Your task to perform on an android device: toggle show notifications on the lock screen Image 0: 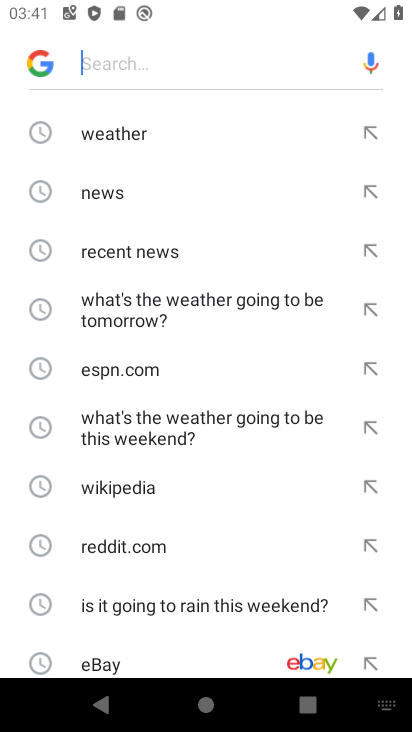
Step 0: press back button
Your task to perform on an android device: toggle show notifications on the lock screen Image 1: 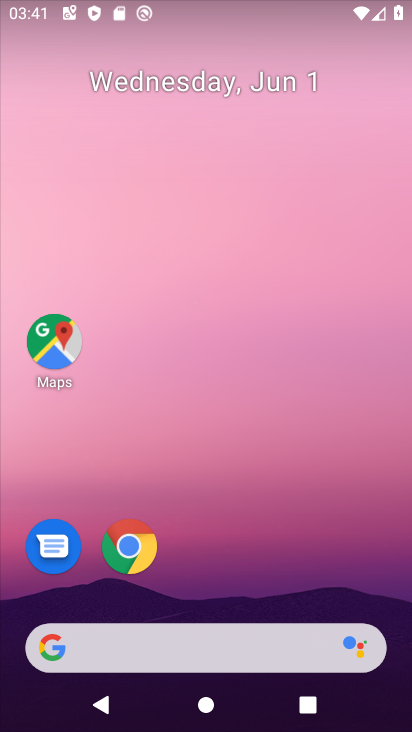
Step 1: drag from (343, 595) to (356, 174)
Your task to perform on an android device: toggle show notifications on the lock screen Image 2: 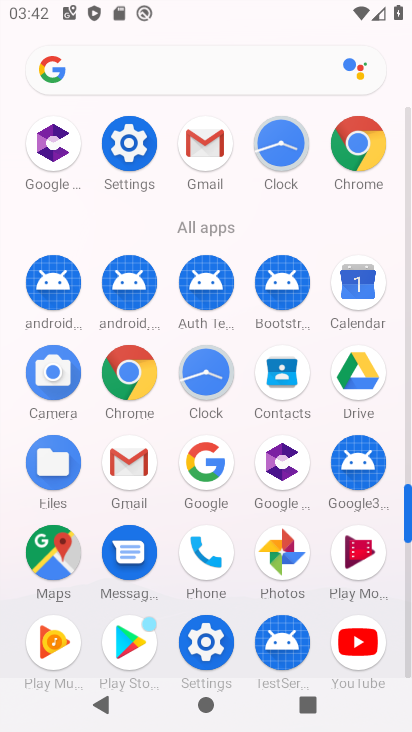
Step 2: click (134, 166)
Your task to perform on an android device: toggle show notifications on the lock screen Image 3: 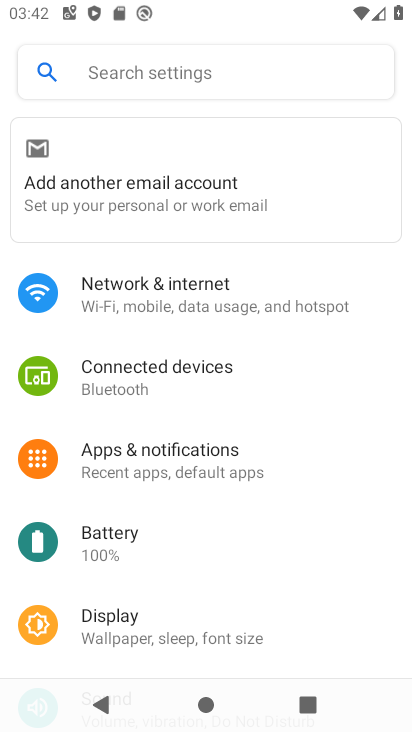
Step 3: click (175, 447)
Your task to perform on an android device: toggle show notifications on the lock screen Image 4: 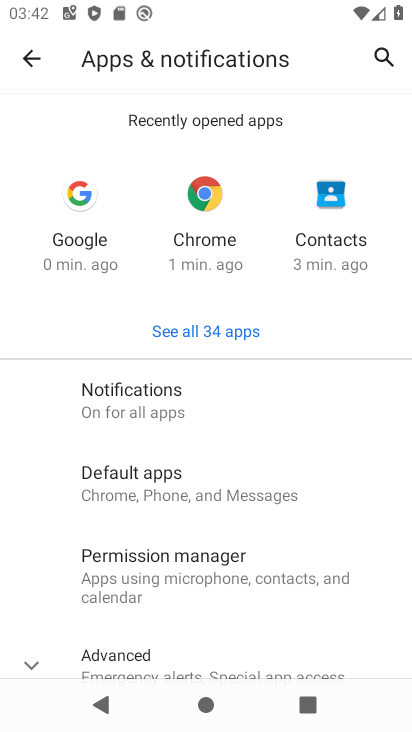
Step 4: click (212, 414)
Your task to perform on an android device: toggle show notifications on the lock screen Image 5: 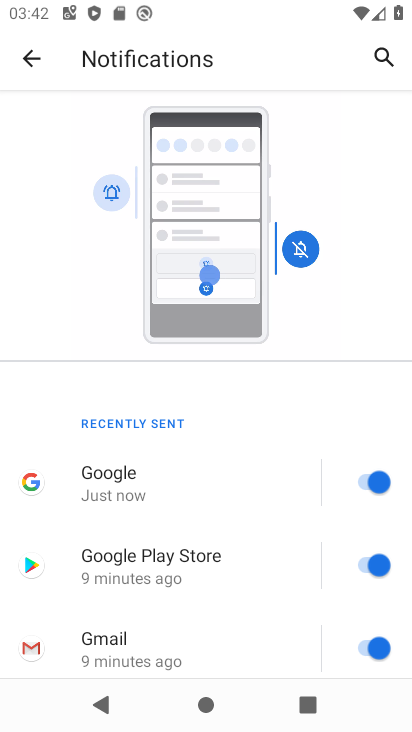
Step 5: drag from (167, 596) to (221, 270)
Your task to perform on an android device: toggle show notifications on the lock screen Image 6: 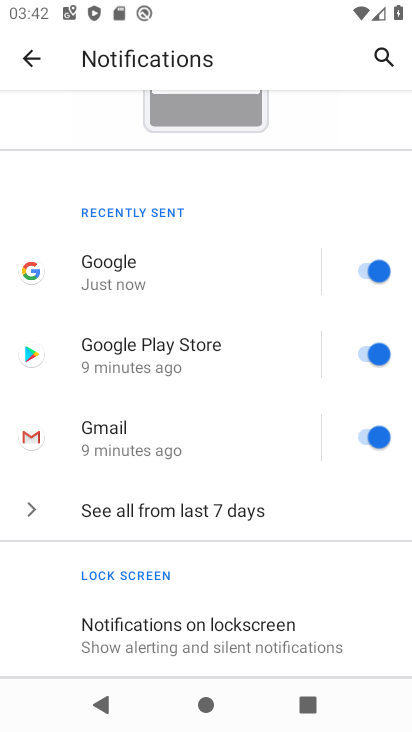
Step 6: drag from (125, 589) to (226, 292)
Your task to perform on an android device: toggle show notifications on the lock screen Image 7: 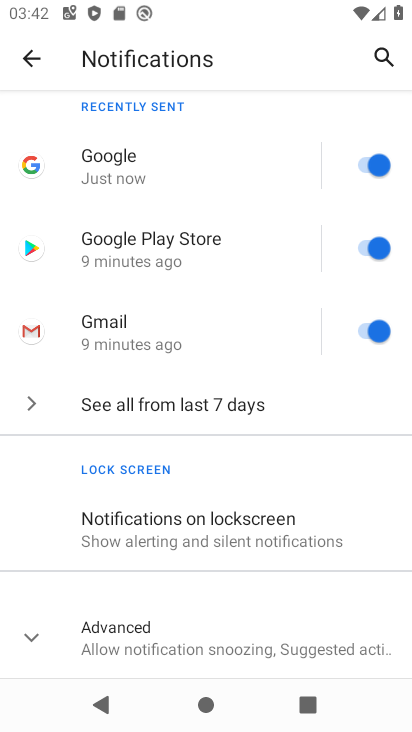
Step 7: click (171, 520)
Your task to perform on an android device: toggle show notifications on the lock screen Image 8: 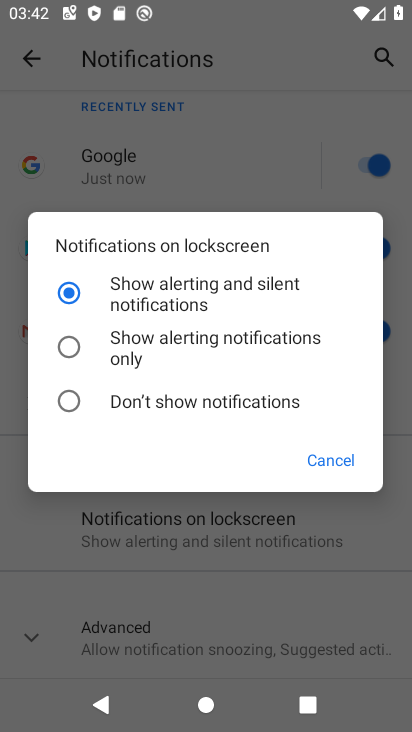
Step 8: click (126, 404)
Your task to perform on an android device: toggle show notifications on the lock screen Image 9: 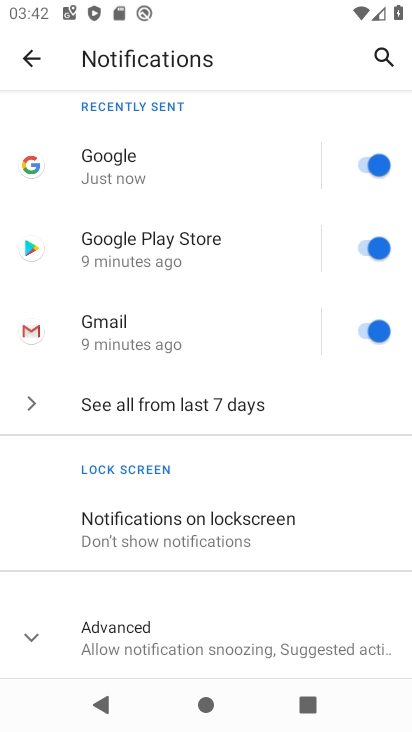
Step 9: task complete